Your task to perform on an android device: turn on wifi Image 0: 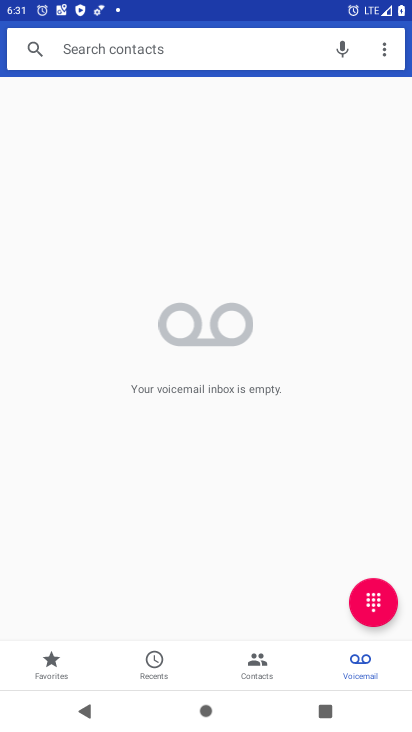
Step 0: press home button
Your task to perform on an android device: turn on wifi Image 1: 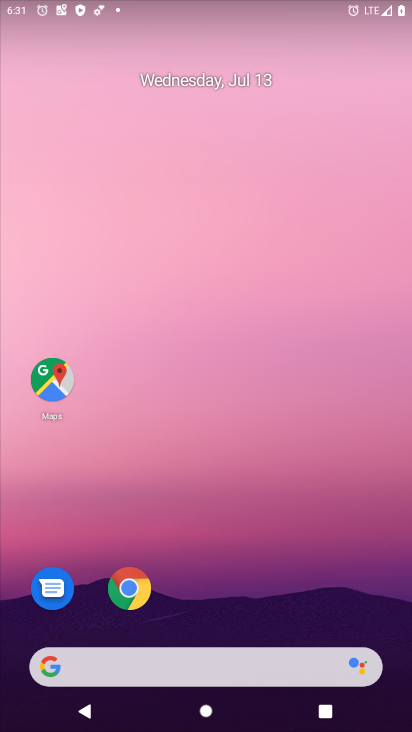
Step 1: drag from (214, 632) to (186, 28)
Your task to perform on an android device: turn on wifi Image 2: 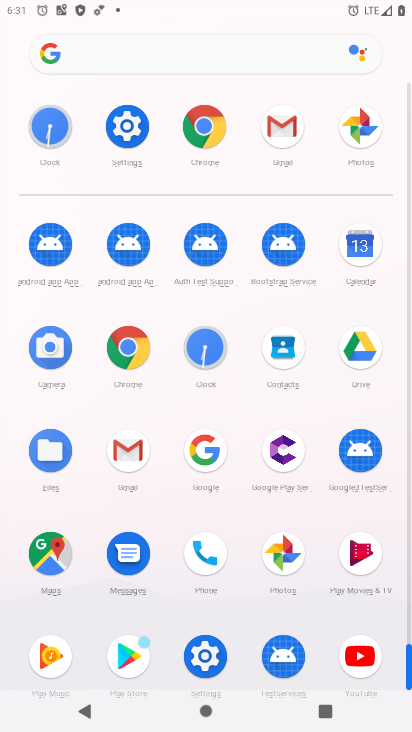
Step 2: click (125, 131)
Your task to perform on an android device: turn on wifi Image 3: 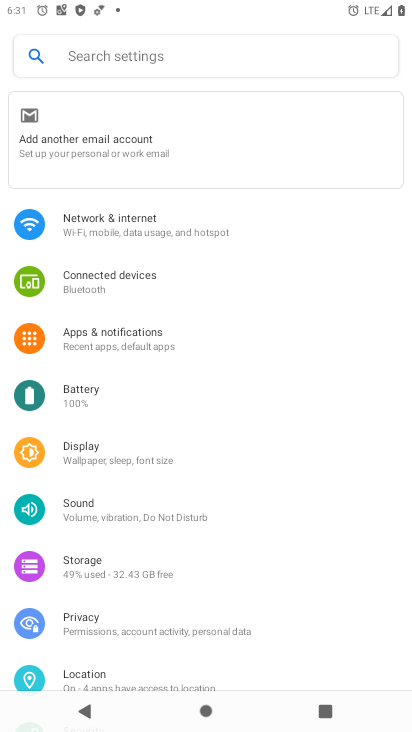
Step 3: click (110, 214)
Your task to perform on an android device: turn on wifi Image 4: 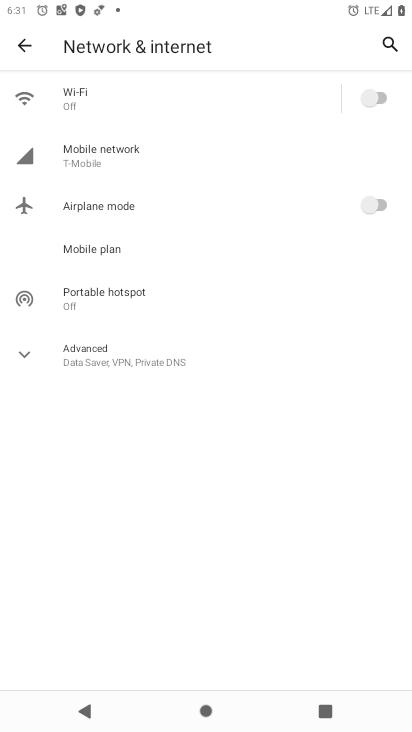
Step 4: click (96, 101)
Your task to perform on an android device: turn on wifi Image 5: 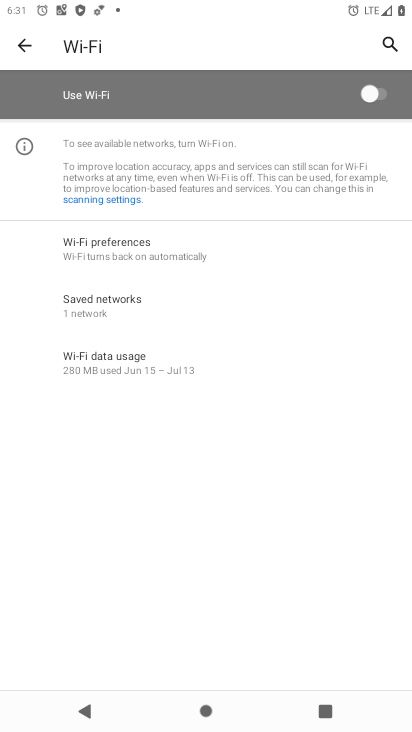
Step 5: task complete